Your task to perform on an android device: turn on javascript in the chrome app Image 0: 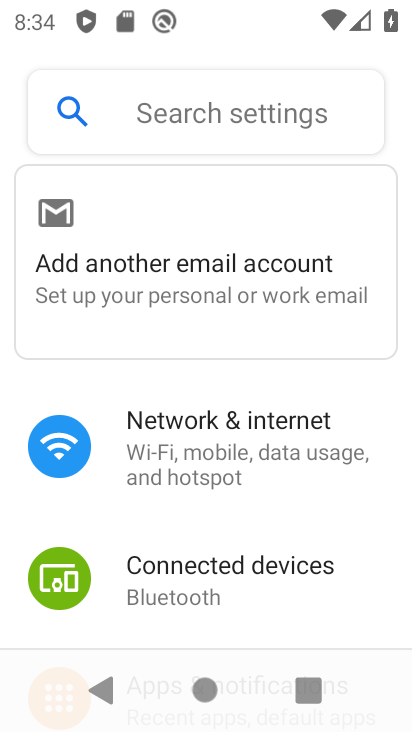
Step 0: press home button
Your task to perform on an android device: turn on javascript in the chrome app Image 1: 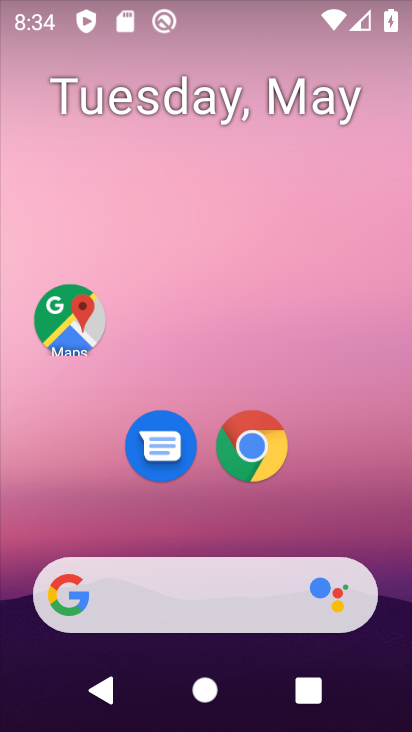
Step 1: drag from (389, 518) to (393, 125)
Your task to perform on an android device: turn on javascript in the chrome app Image 2: 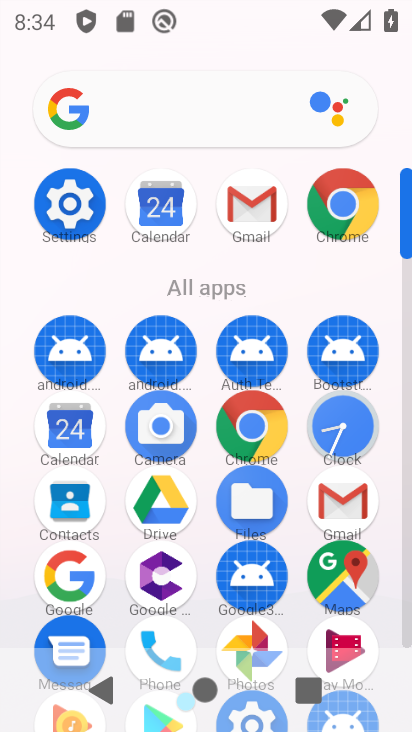
Step 2: click (270, 440)
Your task to perform on an android device: turn on javascript in the chrome app Image 3: 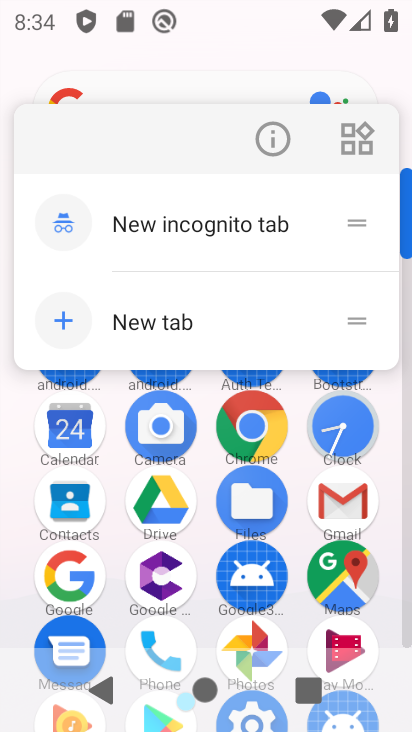
Step 3: click (270, 440)
Your task to perform on an android device: turn on javascript in the chrome app Image 4: 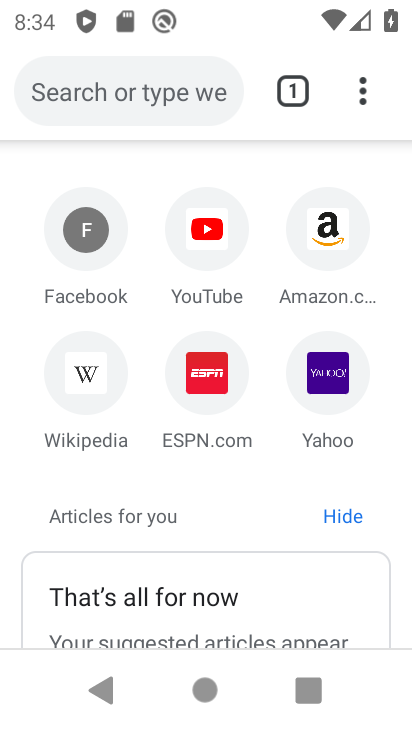
Step 4: click (359, 104)
Your task to perform on an android device: turn on javascript in the chrome app Image 5: 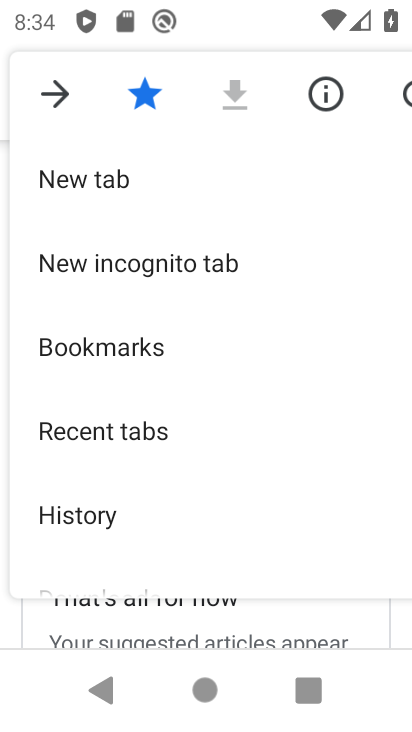
Step 5: drag from (333, 491) to (328, 394)
Your task to perform on an android device: turn on javascript in the chrome app Image 6: 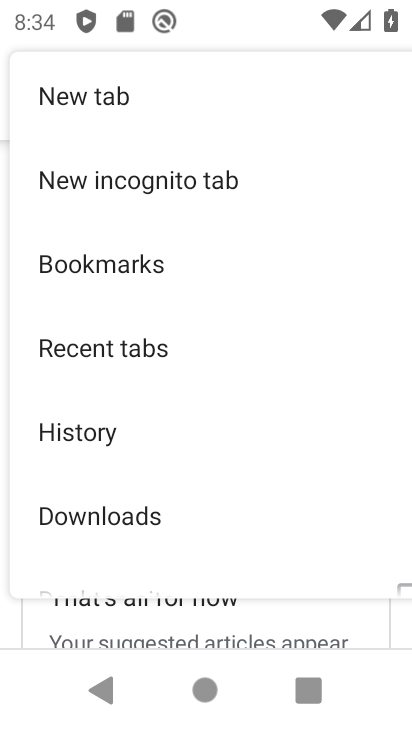
Step 6: drag from (332, 500) to (339, 368)
Your task to perform on an android device: turn on javascript in the chrome app Image 7: 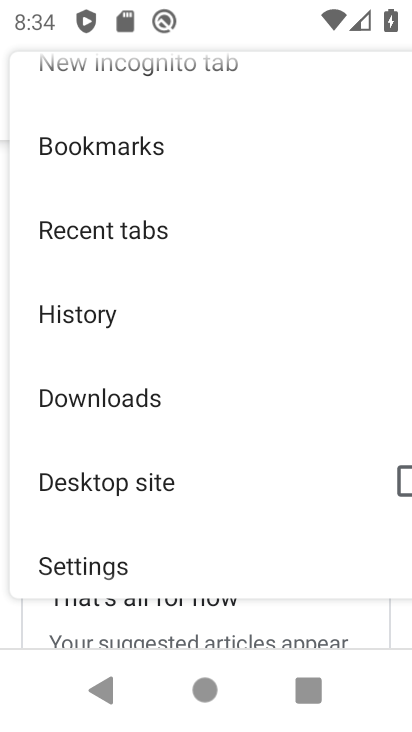
Step 7: drag from (323, 546) to (336, 377)
Your task to perform on an android device: turn on javascript in the chrome app Image 8: 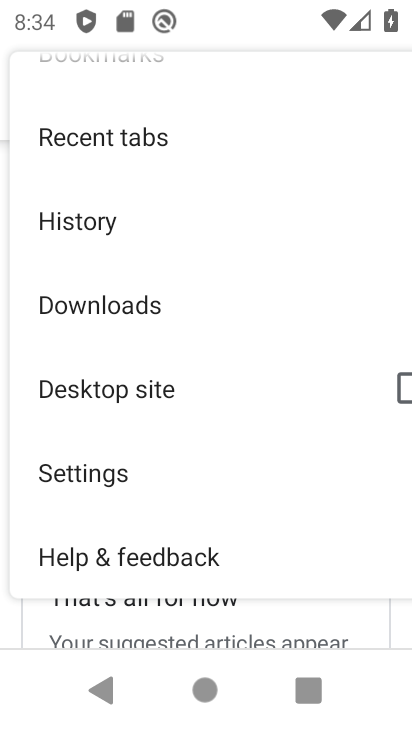
Step 8: click (162, 489)
Your task to perform on an android device: turn on javascript in the chrome app Image 9: 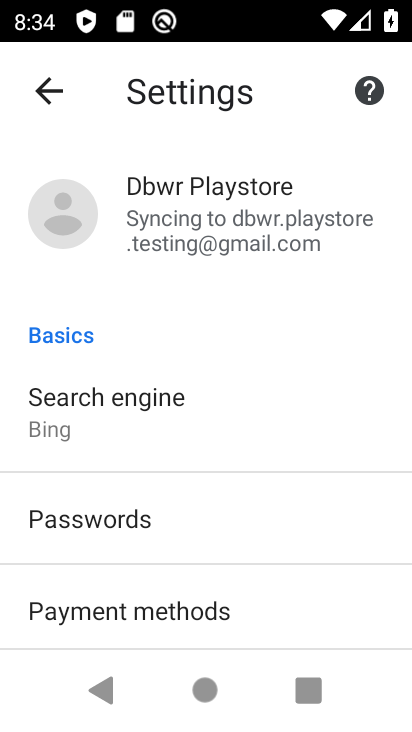
Step 9: drag from (327, 587) to (340, 497)
Your task to perform on an android device: turn on javascript in the chrome app Image 10: 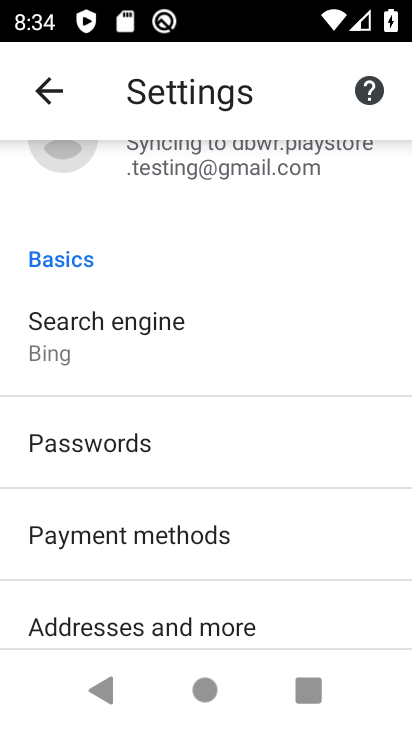
Step 10: drag from (363, 626) to (379, 478)
Your task to perform on an android device: turn on javascript in the chrome app Image 11: 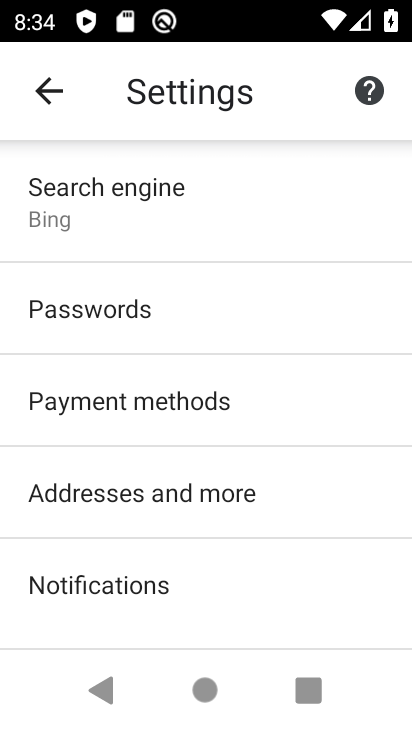
Step 11: drag from (364, 576) to (358, 484)
Your task to perform on an android device: turn on javascript in the chrome app Image 12: 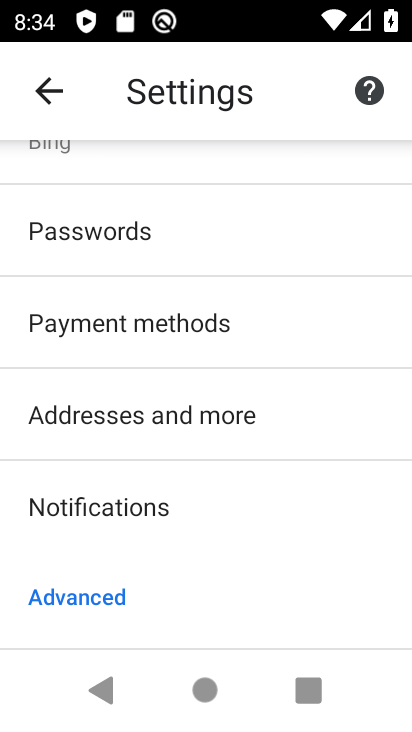
Step 12: drag from (354, 606) to (352, 503)
Your task to perform on an android device: turn on javascript in the chrome app Image 13: 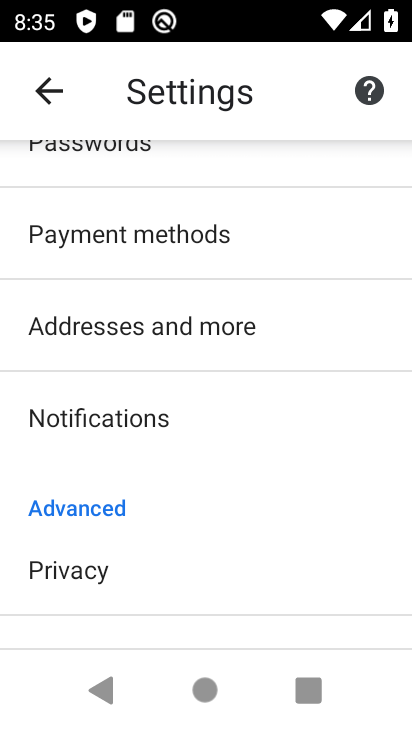
Step 13: drag from (343, 582) to (342, 484)
Your task to perform on an android device: turn on javascript in the chrome app Image 14: 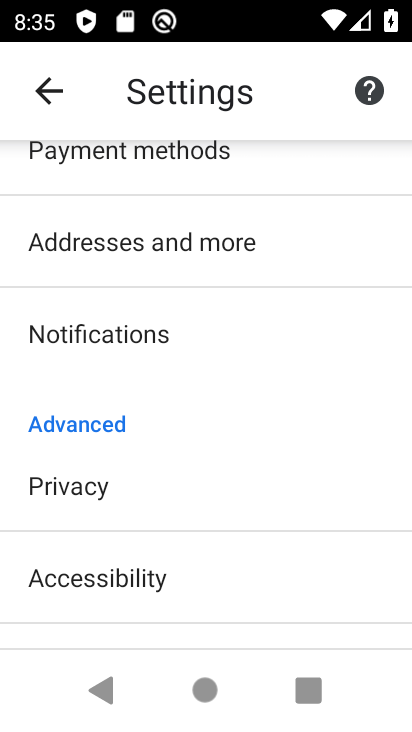
Step 14: drag from (346, 598) to (336, 509)
Your task to perform on an android device: turn on javascript in the chrome app Image 15: 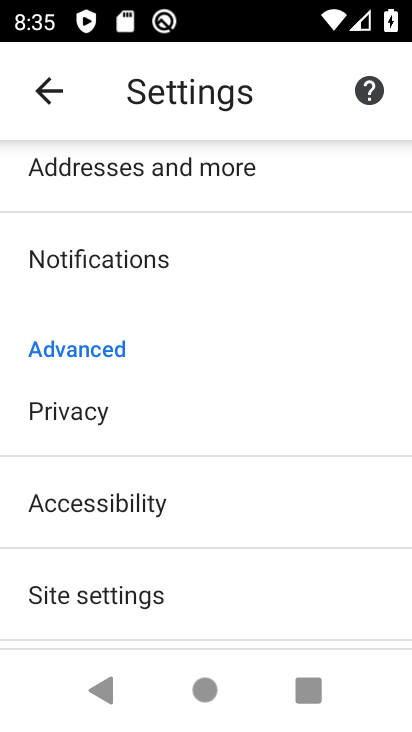
Step 15: drag from (345, 589) to (361, 499)
Your task to perform on an android device: turn on javascript in the chrome app Image 16: 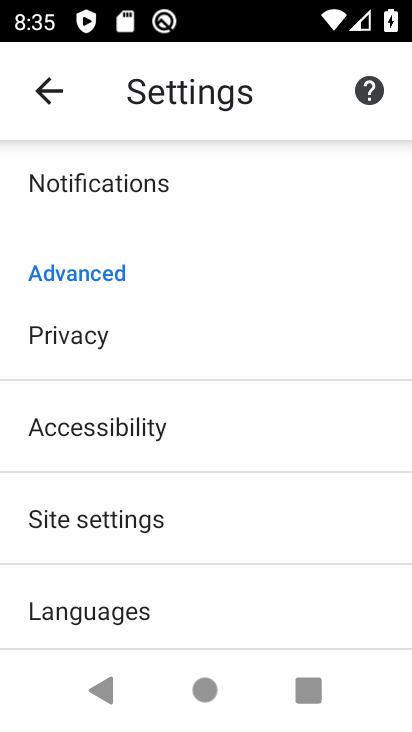
Step 16: drag from (330, 591) to (332, 521)
Your task to perform on an android device: turn on javascript in the chrome app Image 17: 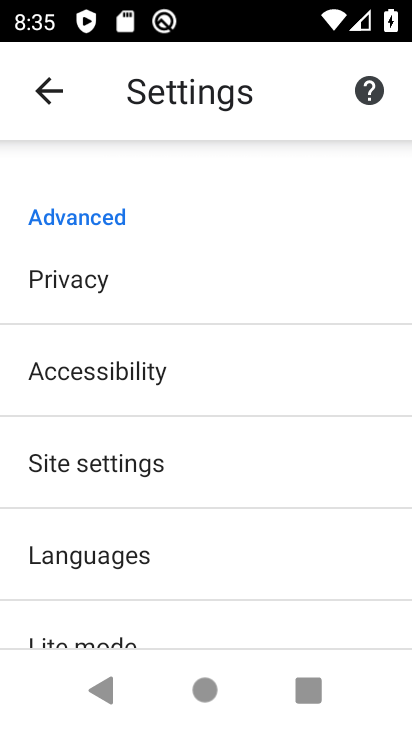
Step 17: click (275, 478)
Your task to perform on an android device: turn on javascript in the chrome app Image 18: 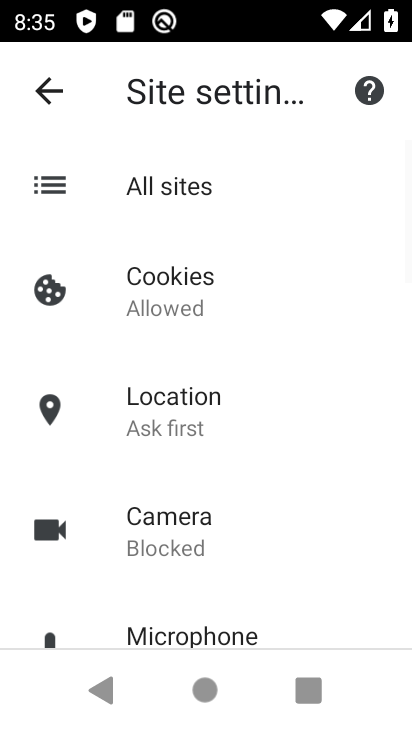
Step 18: drag from (317, 567) to (320, 447)
Your task to perform on an android device: turn on javascript in the chrome app Image 19: 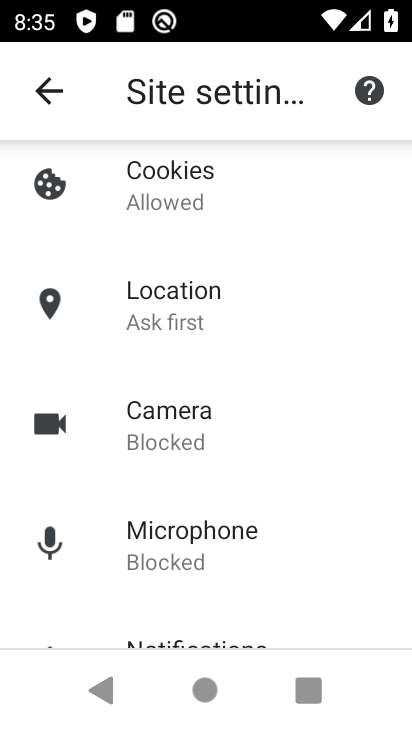
Step 19: drag from (337, 567) to (352, 446)
Your task to perform on an android device: turn on javascript in the chrome app Image 20: 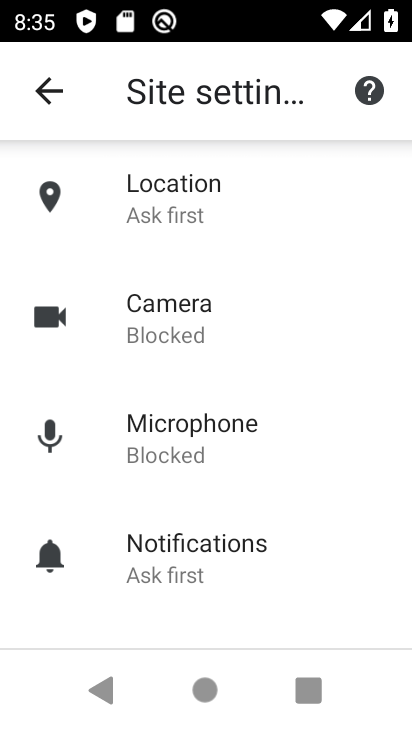
Step 20: drag from (350, 566) to (361, 461)
Your task to perform on an android device: turn on javascript in the chrome app Image 21: 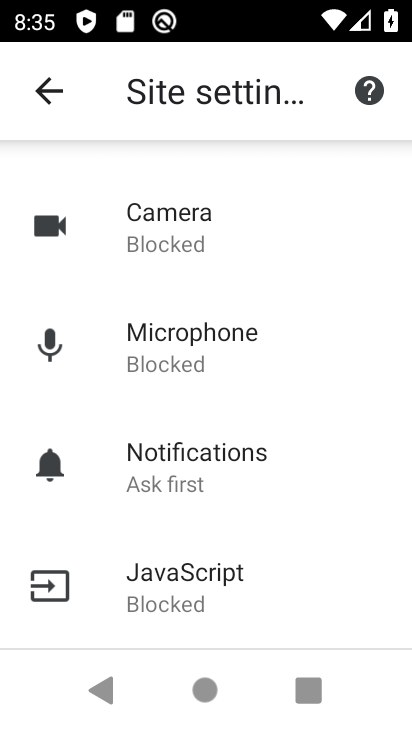
Step 21: drag from (351, 582) to (360, 456)
Your task to perform on an android device: turn on javascript in the chrome app Image 22: 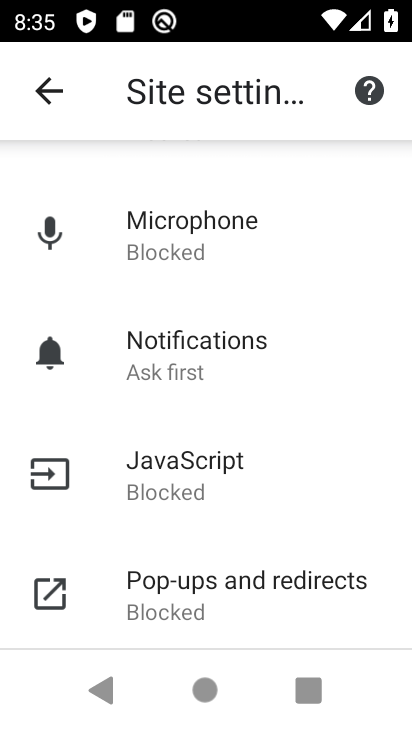
Step 22: click (291, 488)
Your task to perform on an android device: turn on javascript in the chrome app Image 23: 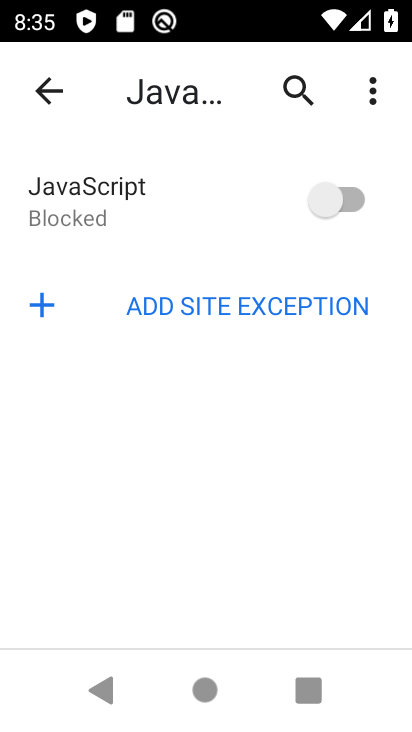
Step 23: click (335, 206)
Your task to perform on an android device: turn on javascript in the chrome app Image 24: 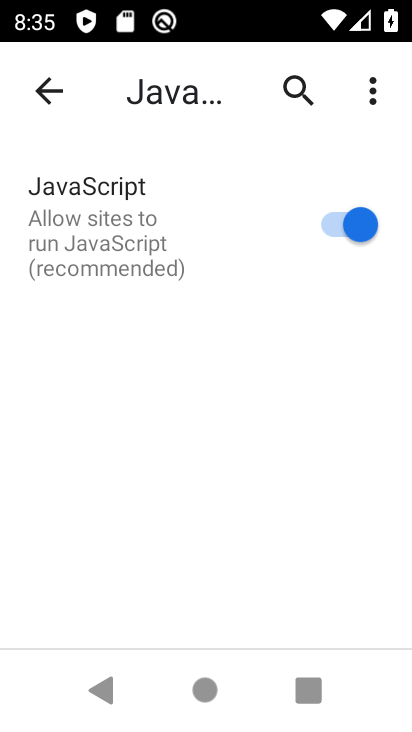
Step 24: task complete